Your task to perform on an android device: Search for vegetarian restaurants on Maps Image 0: 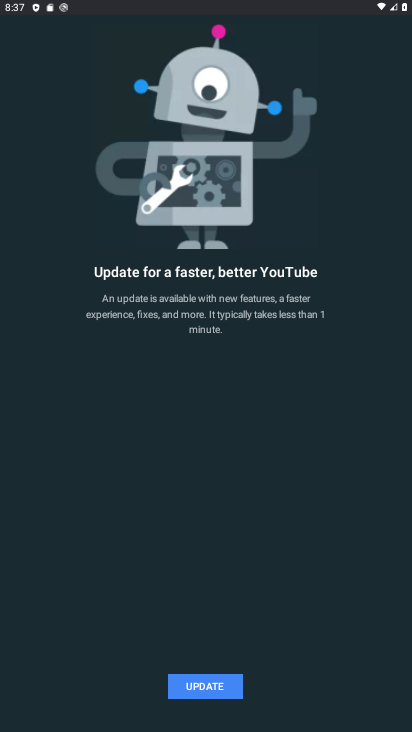
Step 0: press home button
Your task to perform on an android device: Search for vegetarian restaurants on Maps Image 1: 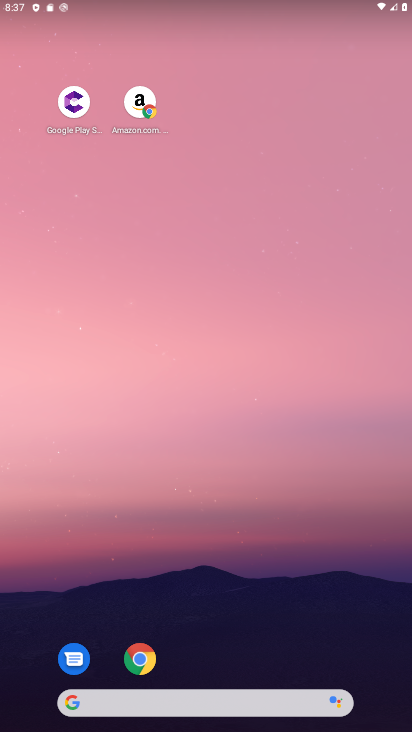
Step 1: drag from (214, 702) to (319, 152)
Your task to perform on an android device: Search for vegetarian restaurants on Maps Image 2: 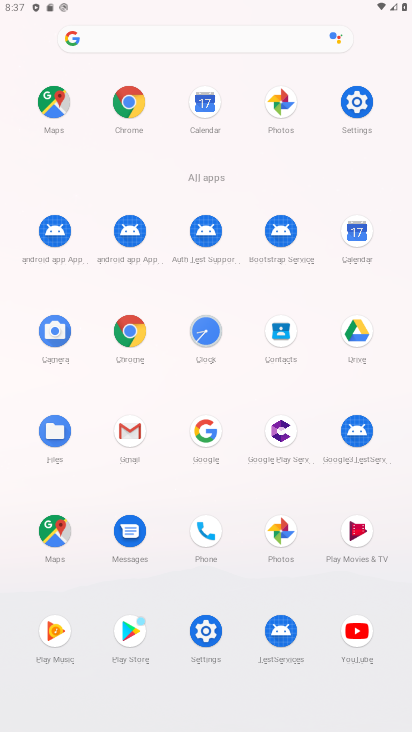
Step 2: click (52, 104)
Your task to perform on an android device: Search for vegetarian restaurants on Maps Image 3: 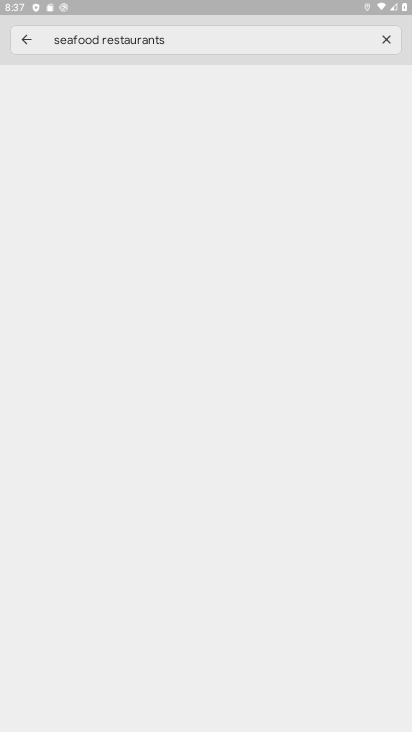
Step 3: click (386, 41)
Your task to perform on an android device: Search for vegetarian restaurants on Maps Image 4: 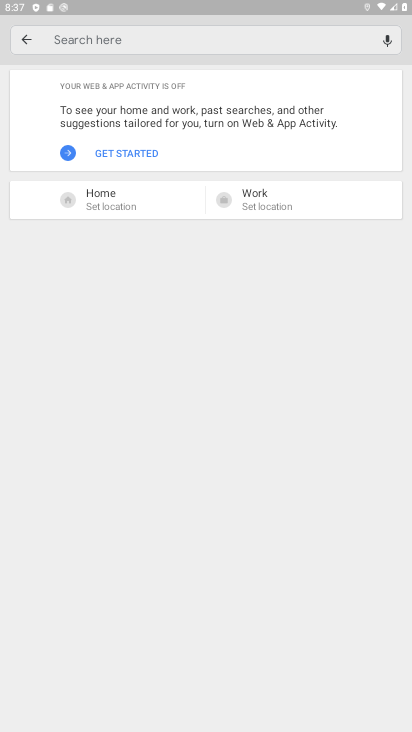
Step 4: click (126, 149)
Your task to perform on an android device: Search for vegetarian restaurants on Maps Image 5: 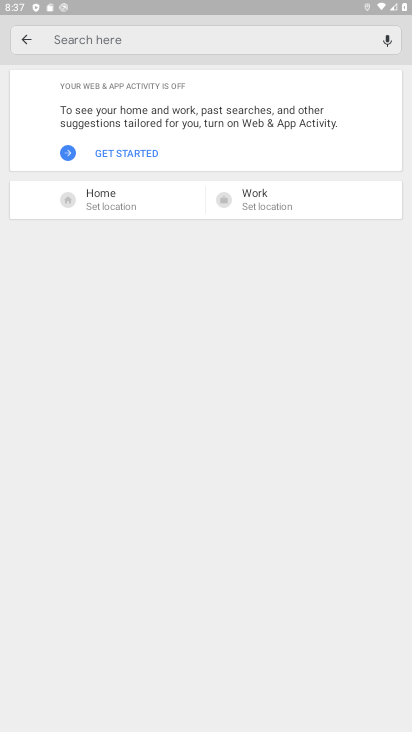
Step 5: click (122, 150)
Your task to perform on an android device: Search for vegetarian restaurants on Maps Image 6: 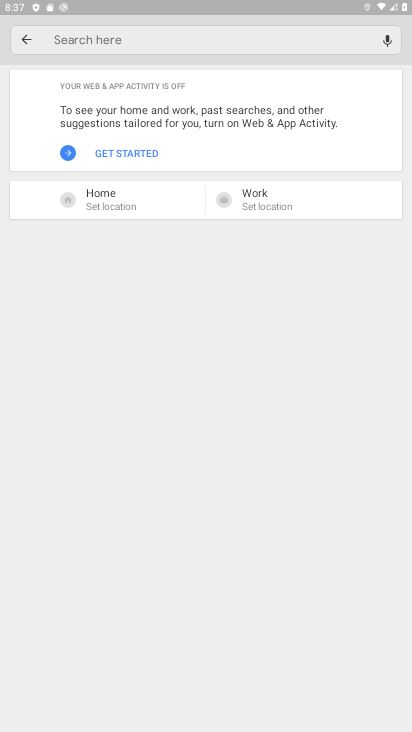
Step 6: press back button
Your task to perform on an android device: Search for vegetarian restaurants on Maps Image 7: 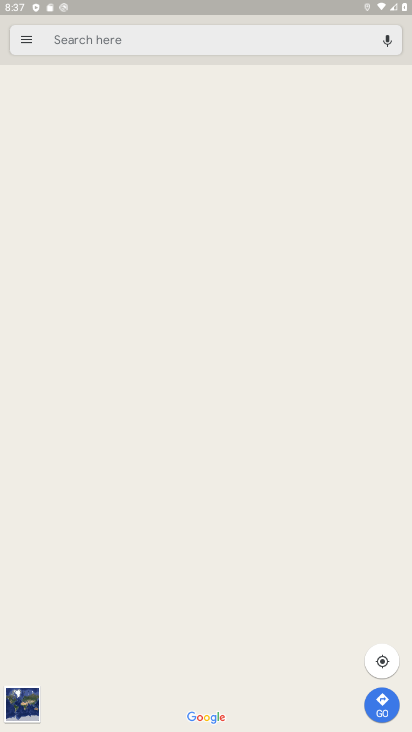
Step 7: click (188, 42)
Your task to perform on an android device: Search for vegetarian restaurants on Maps Image 8: 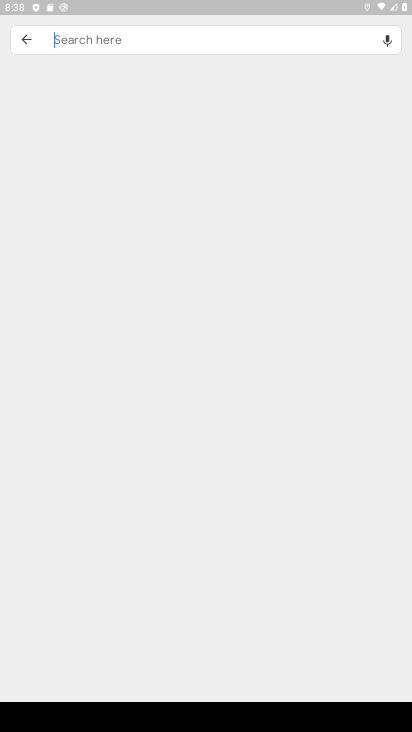
Step 8: type "vegetarian restaurants"
Your task to perform on an android device: Search for vegetarian restaurants on Maps Image 9: 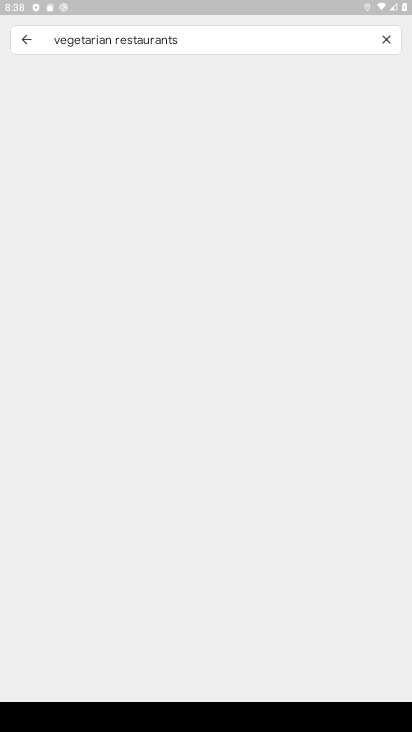
Step 9: task complete